Your task to perform on an android device: open app "AliExpress" (install if not already installed), go to login, and select forgot password Image 0: 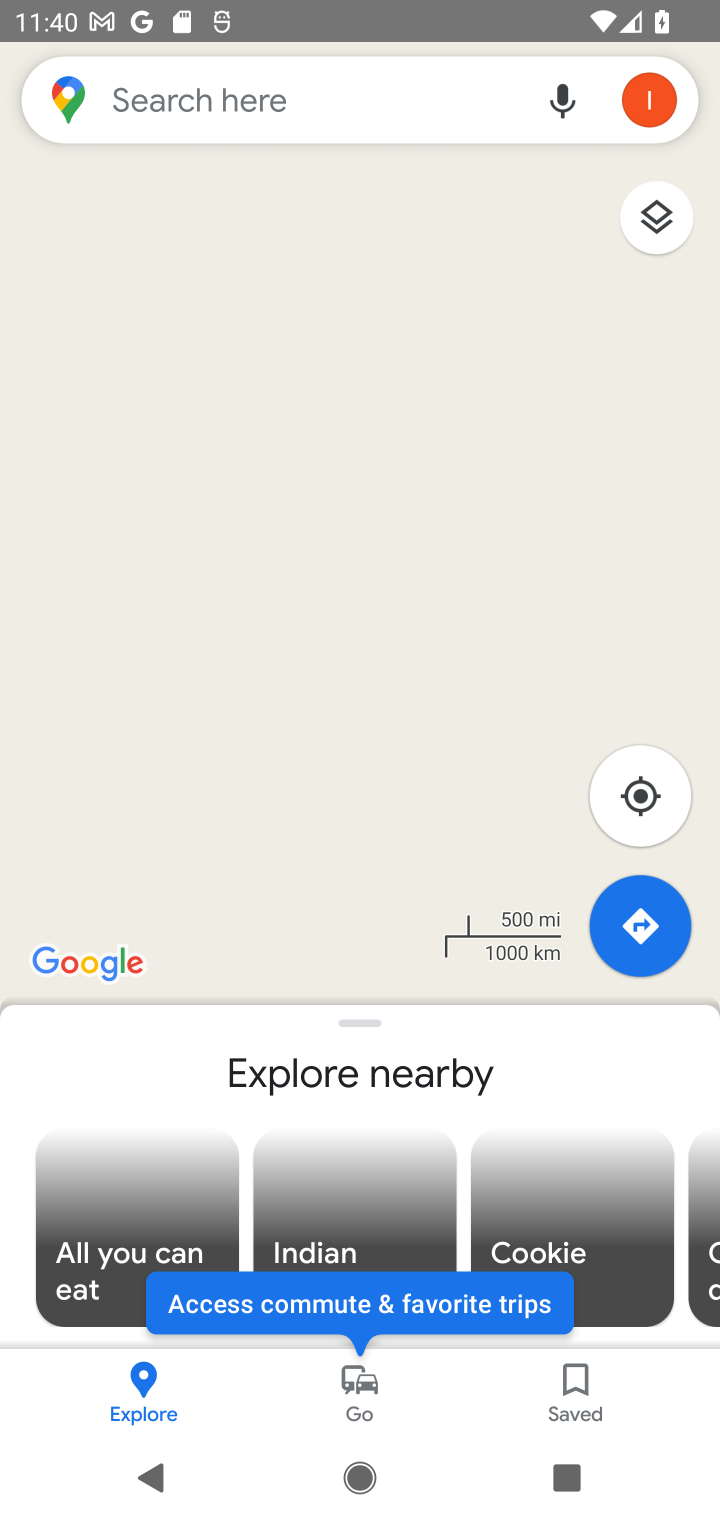
Step 0: press home button
Your task to perform on an android device: open app "AliExpress" (install if not already installed), go to login, and select forgot password Image 1: 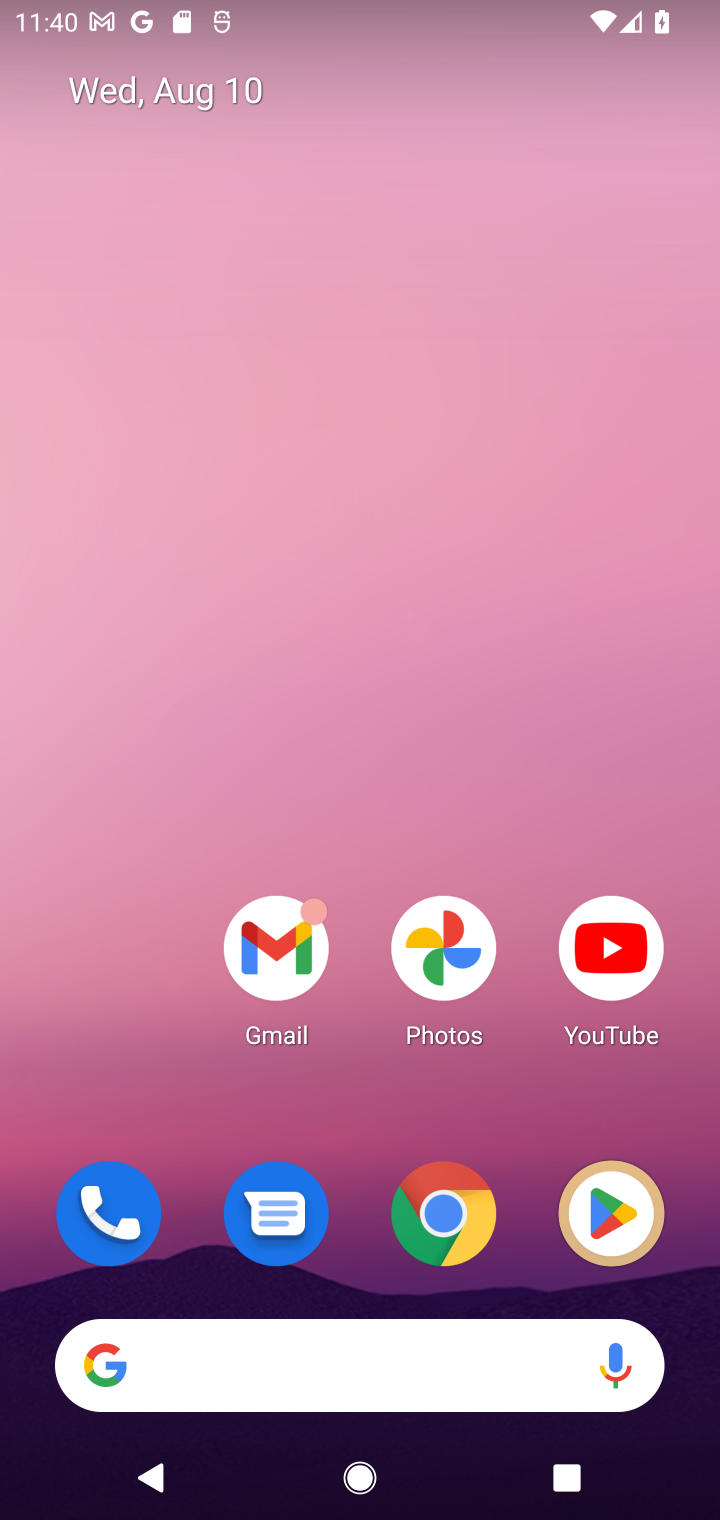
Step 1: drag from (309, 1358) to (363, 209)
Your task to perform on an android device: open app "AliExpress" (install if not already installed), go to login, and select forgot password Image 2: 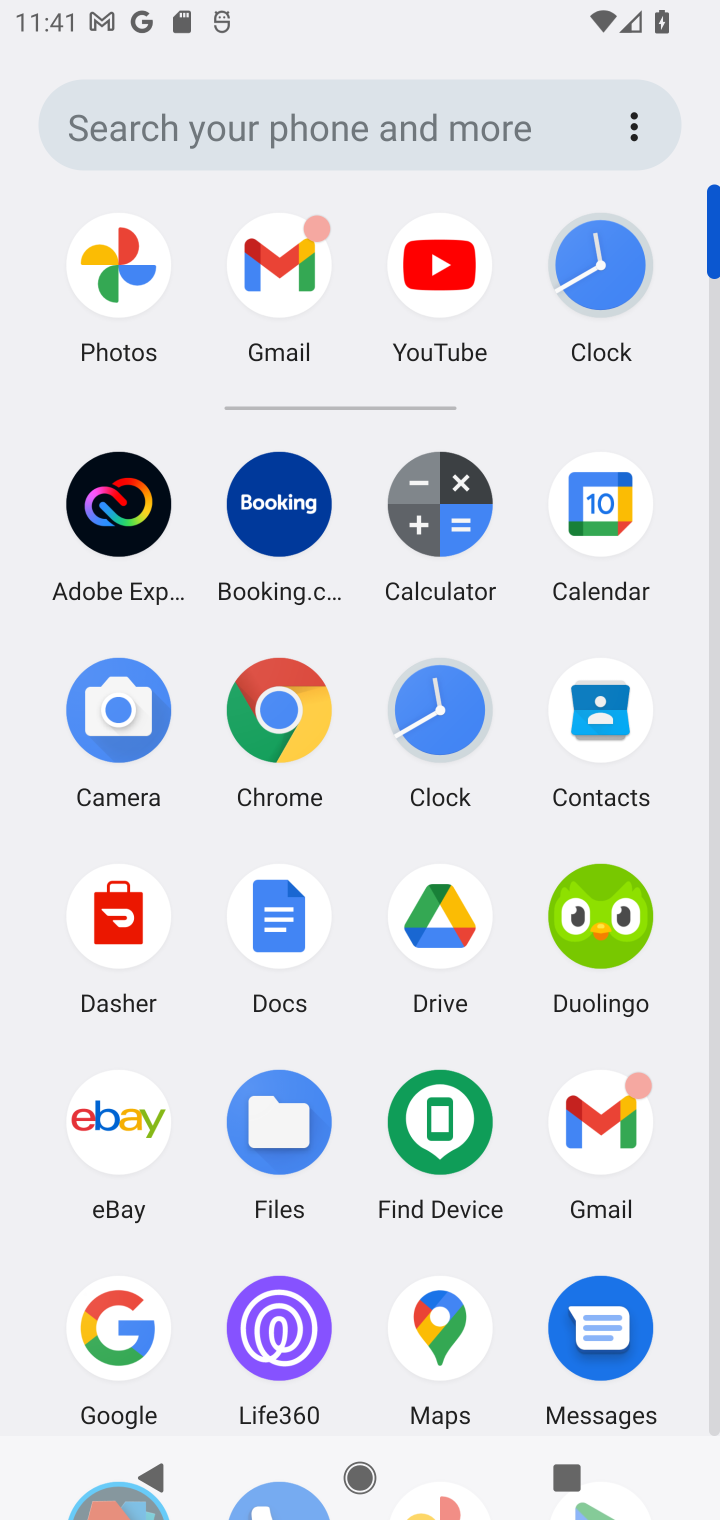
Step 2: drag from (515, 1216) to (538, 662)
Your task to perform on an android device: open app "AliExpress" (install if not already installed), go to login, and select forgot password Image 3: 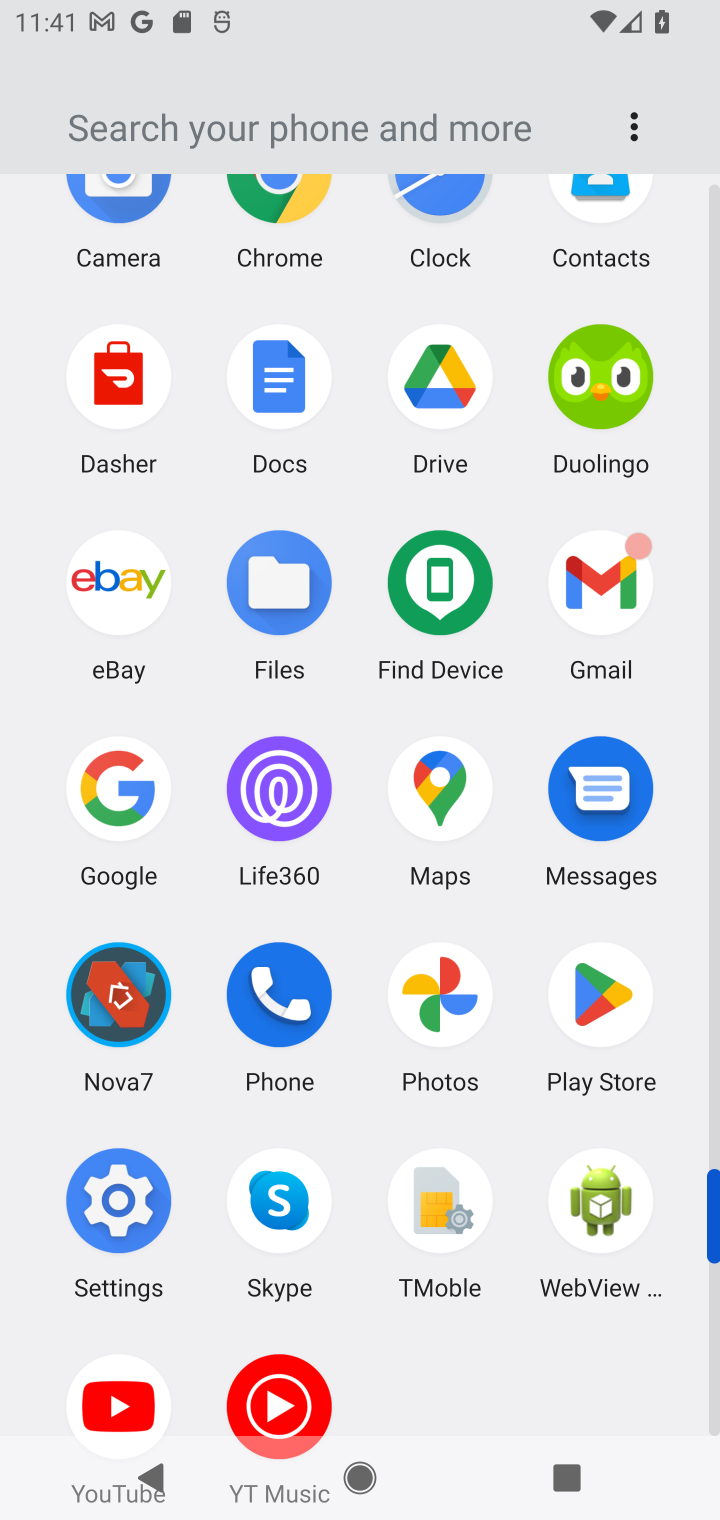
Step 3: click (605, 999)
Your task to perform on an android device: open app "AliExpress" (install if not already installed), go to login, and select forgot password Image 4: 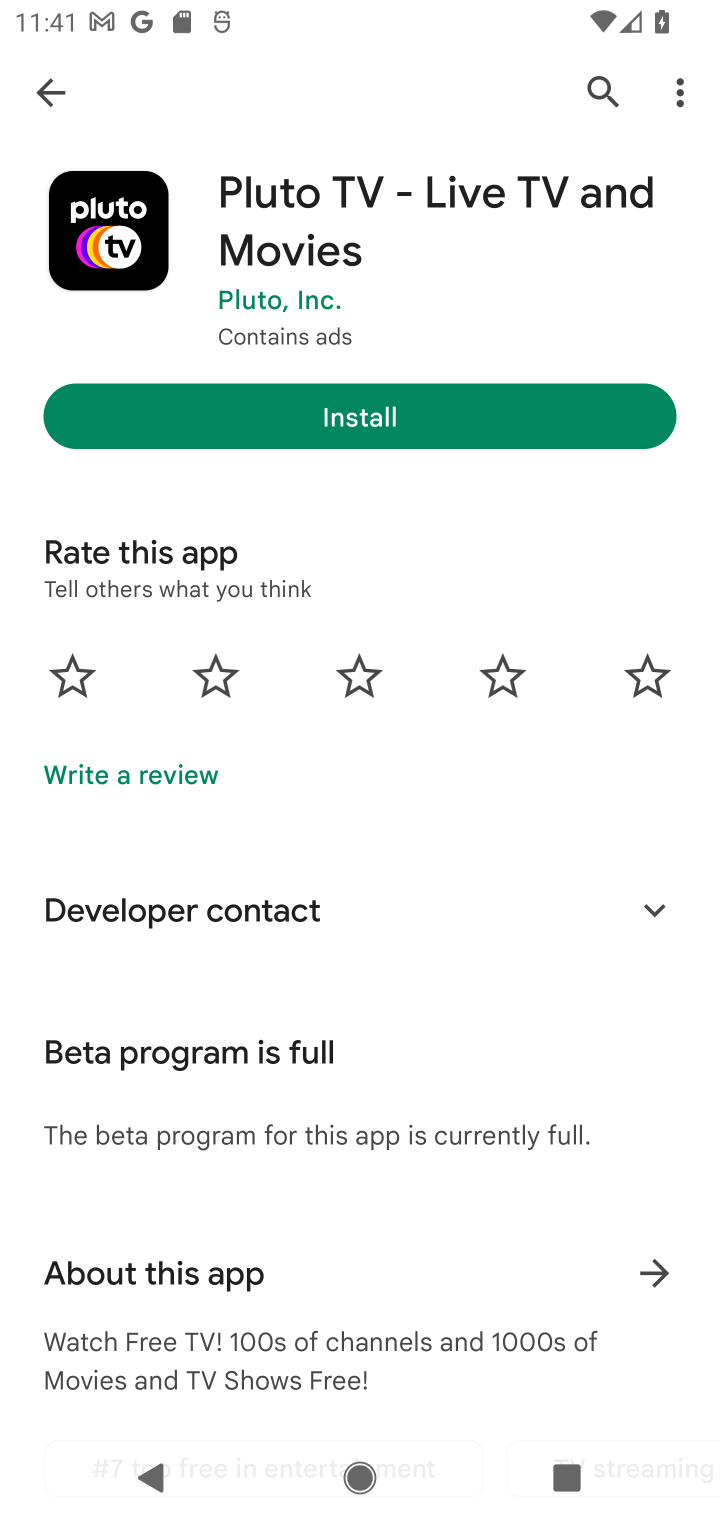
Step 4: press back button
Your task to perform on an android device: open app "AliExpress" (install if not already installed), go to login, and select forgot password Image 5: 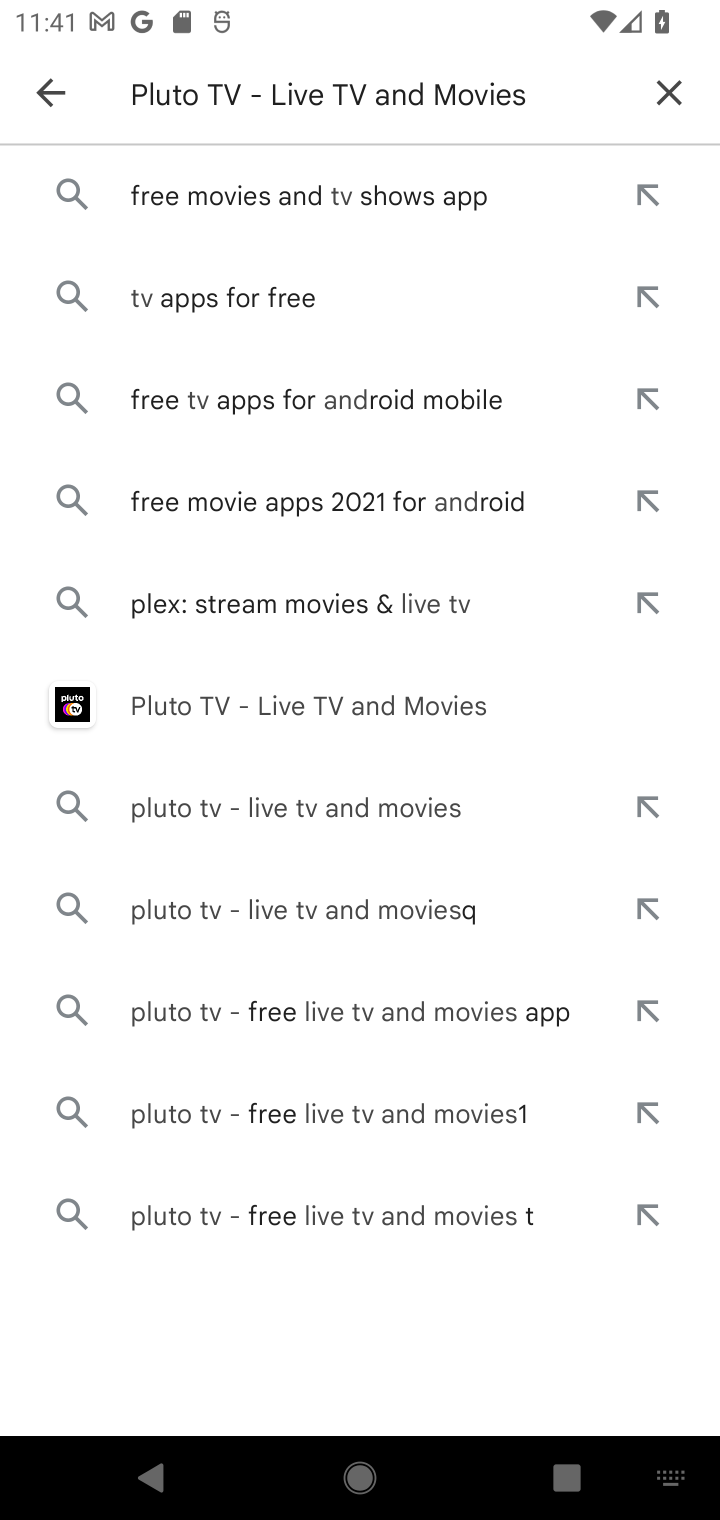
Step 5: press back button
Your task to perform on an android device: open app "AliExpress" (install if not already installed), go to login, and select forgot password Image 6: 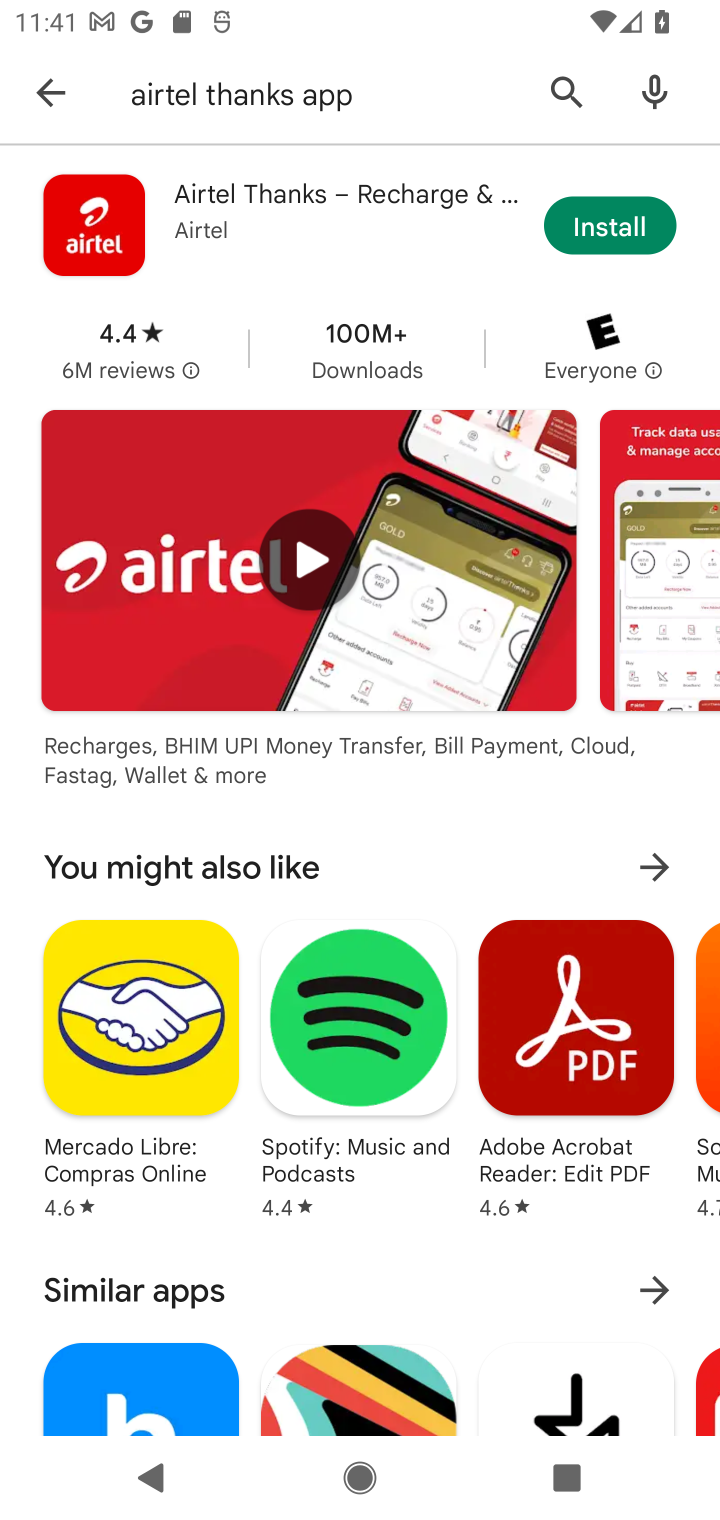
Step 6: press back button
Your task to perform on an android device: open app "AliExpress" (install if not already installed), go to login, and select forgot password Image 7: 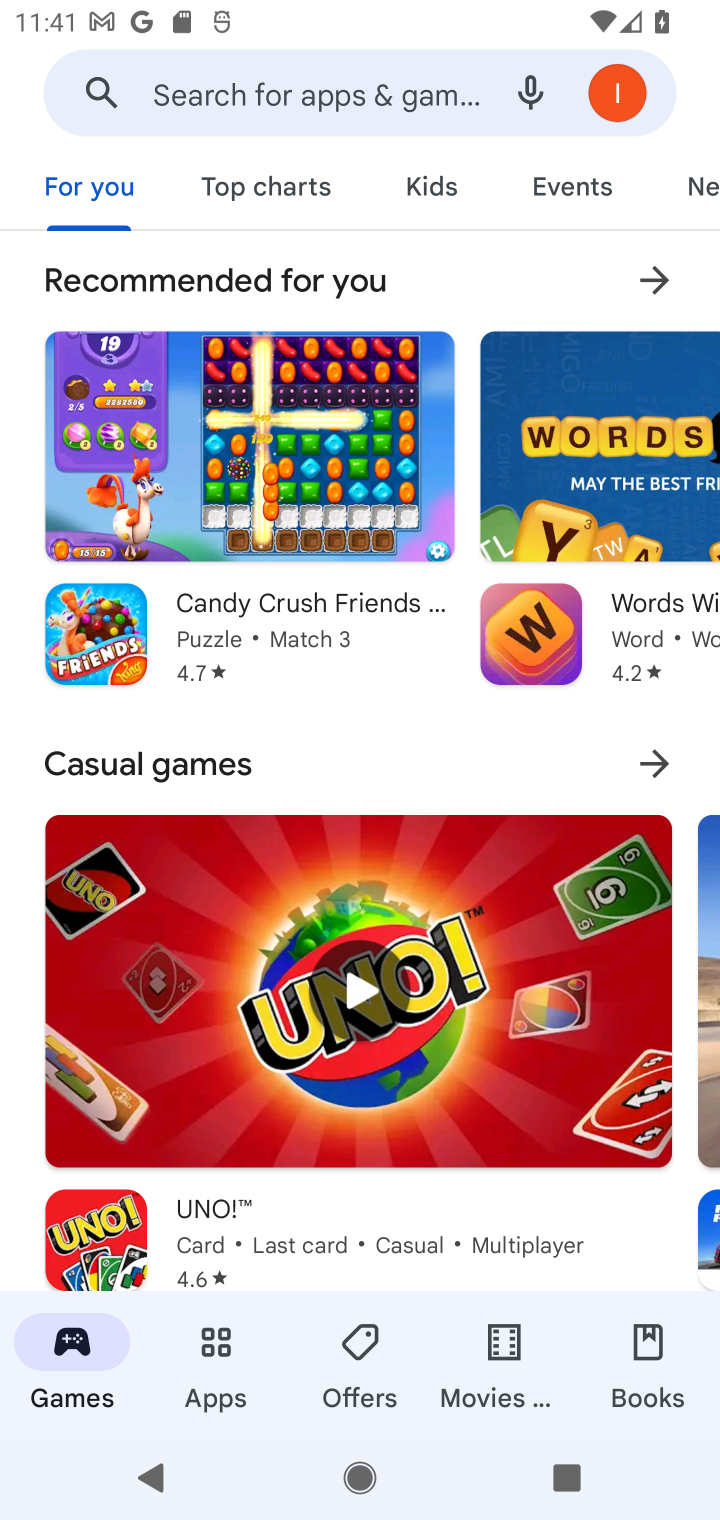
Step 7: click (388, 98)
Your task to perform on an android device: open app "AliExpress" (install if not already installed), go to login, and select forgot password Image 8: 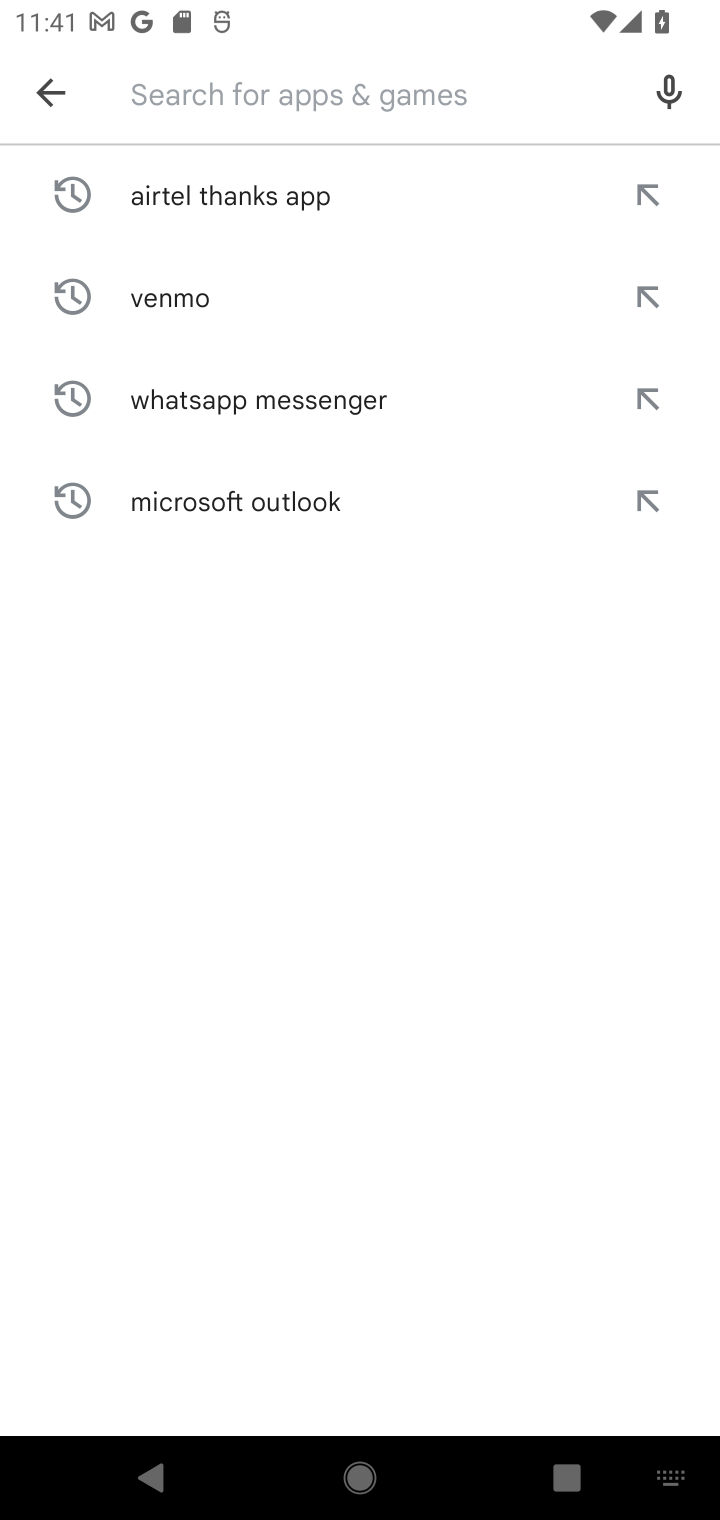
Step 8: type "AliExpress"
Your task to perform on an android device: open app "AliExpress" (install if not already installed), go to login, and select forgot password Image 9: 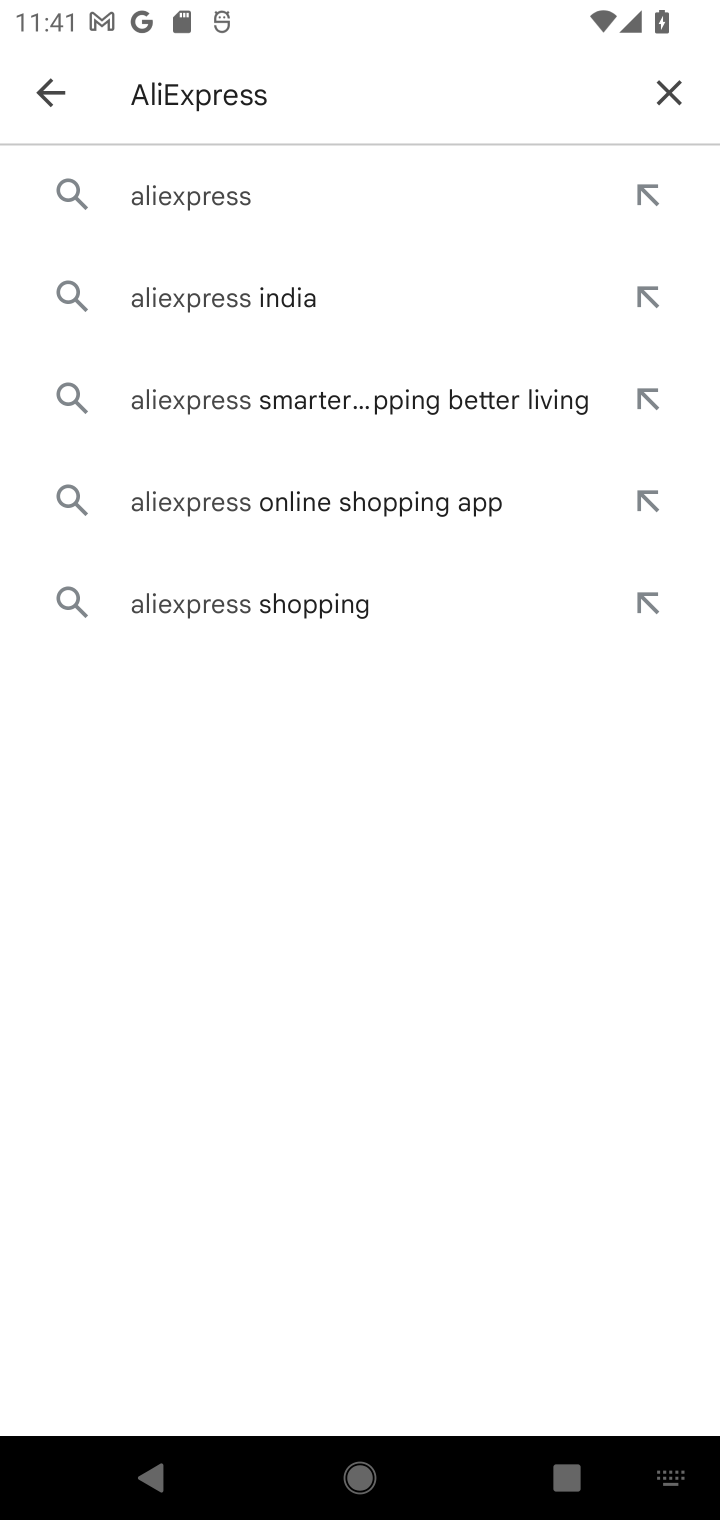
Step 9: click (188, 198)
Your task to perform on an android device: open app "AliExpress" (install if not already installed), go to login, and select forgot password Image 10: 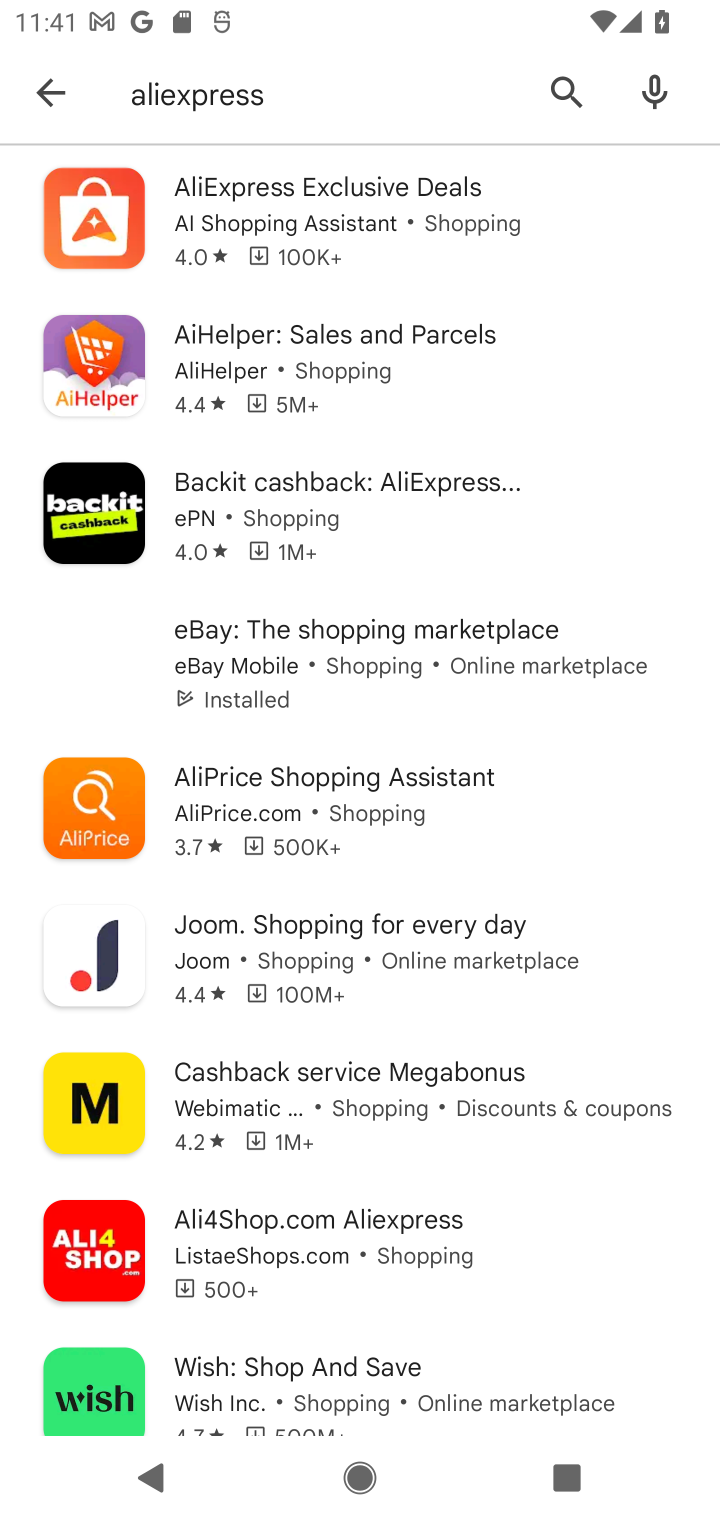
Step 10: click (298, 175)
Your task to perform on an android device: open app "AliExpress" (install if not already installed), go to login, and select forgot password Image 11: 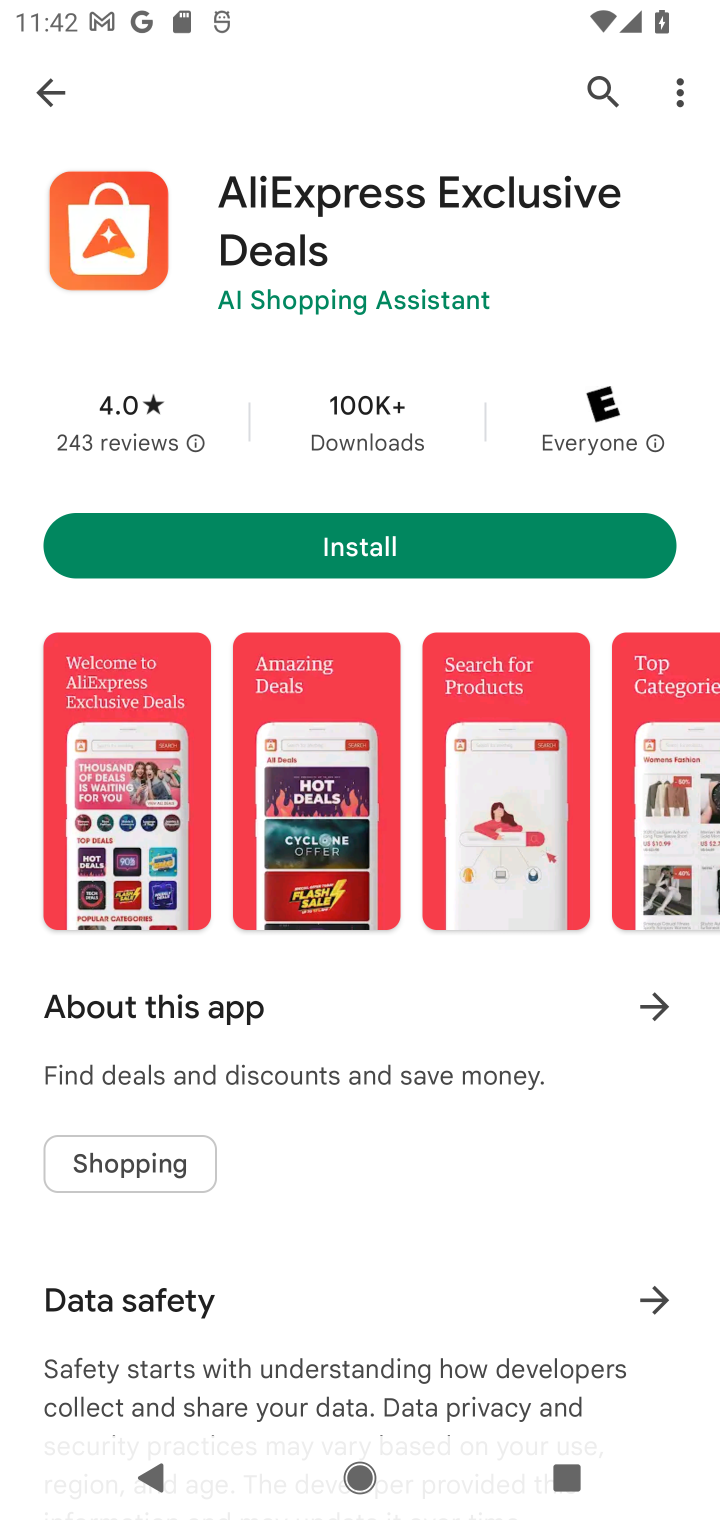
Step 11: click (445, 546)
Your task to perform on an android device: open app "AliExpress" (install if not already installed), go to login, and select forgot password Image 12: 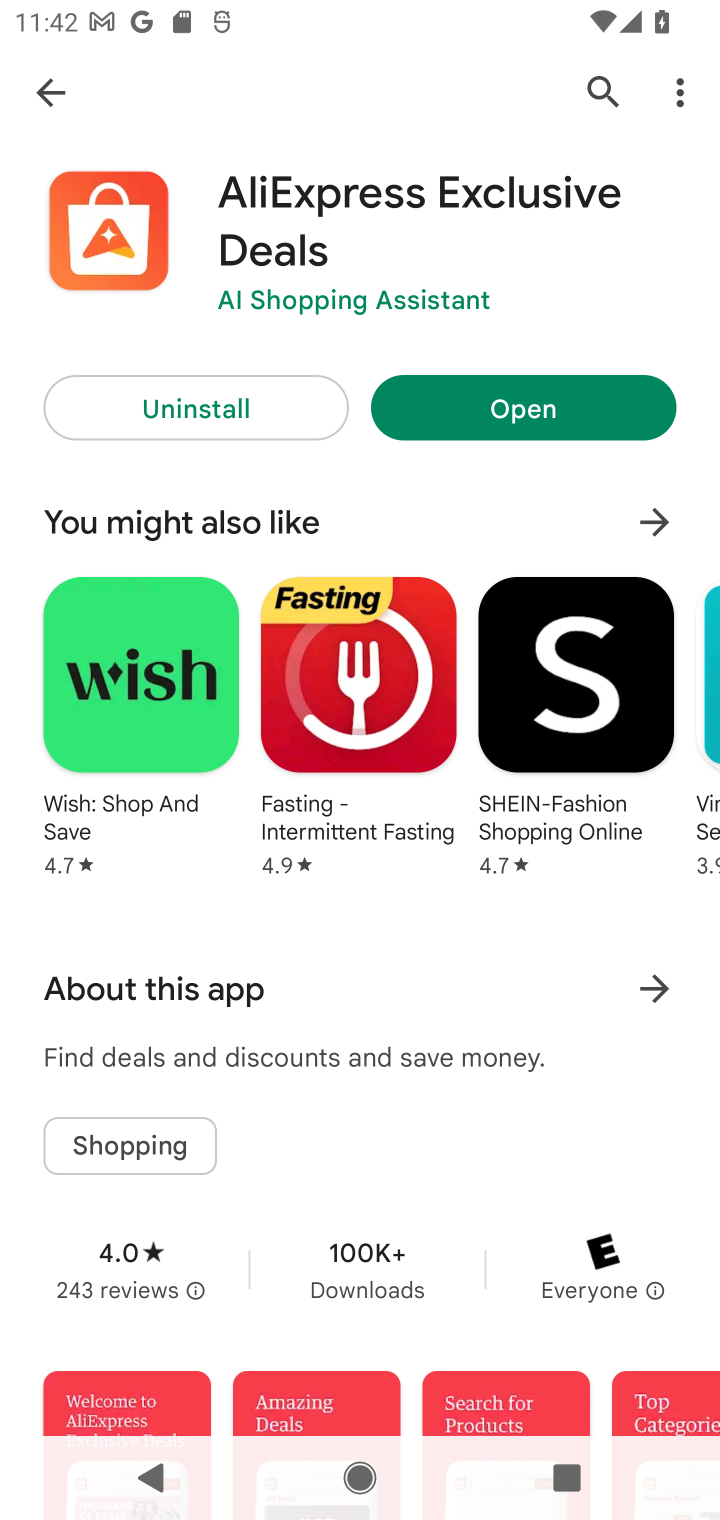
Step 12: click (515, 411)
Your task to perform on an android device: open app "AliExpress" (install if not already installed), go to login, and select forgot password Image 13: 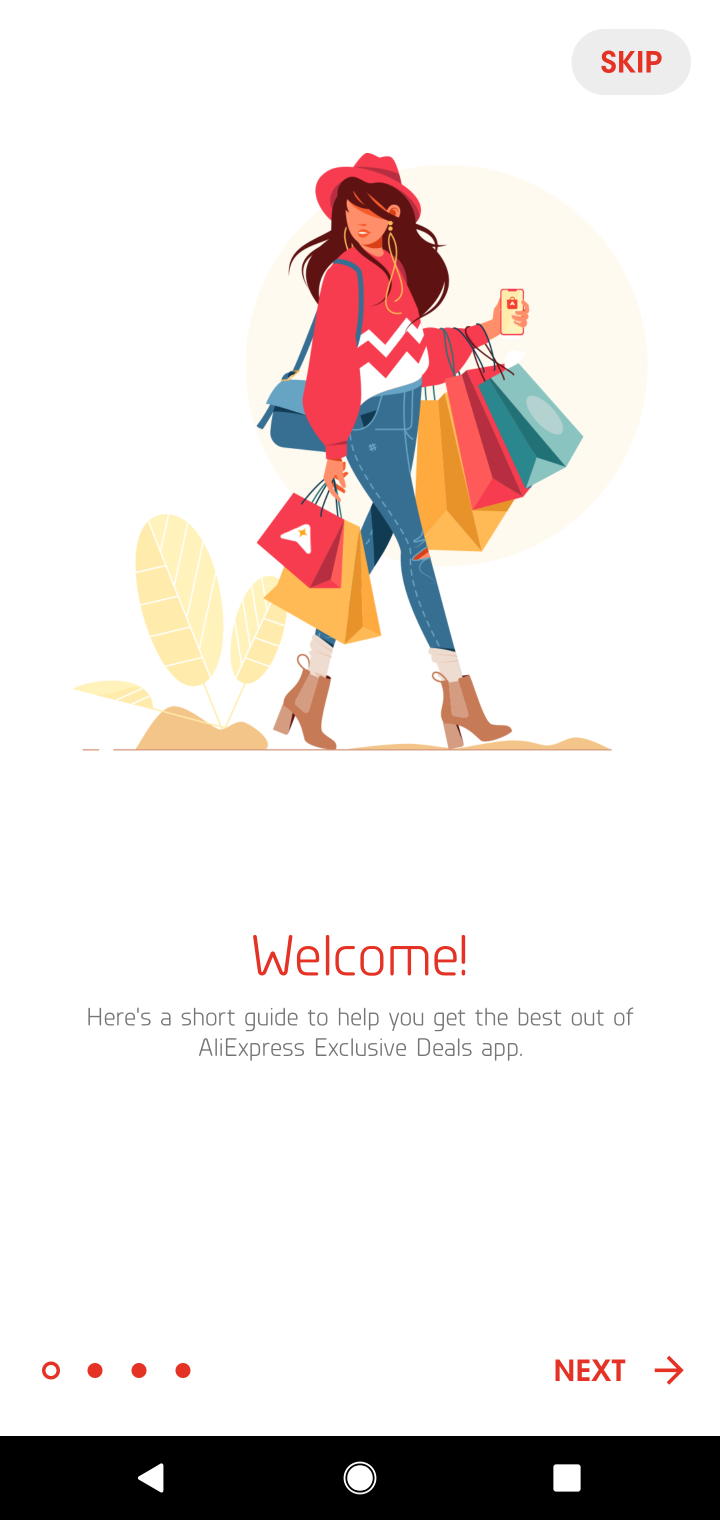
Step 13: click (603, 1362)
Your task to perform on an android device: open app "AliExpress" (install if not already installed), go to login, and select forgot password Image 14: 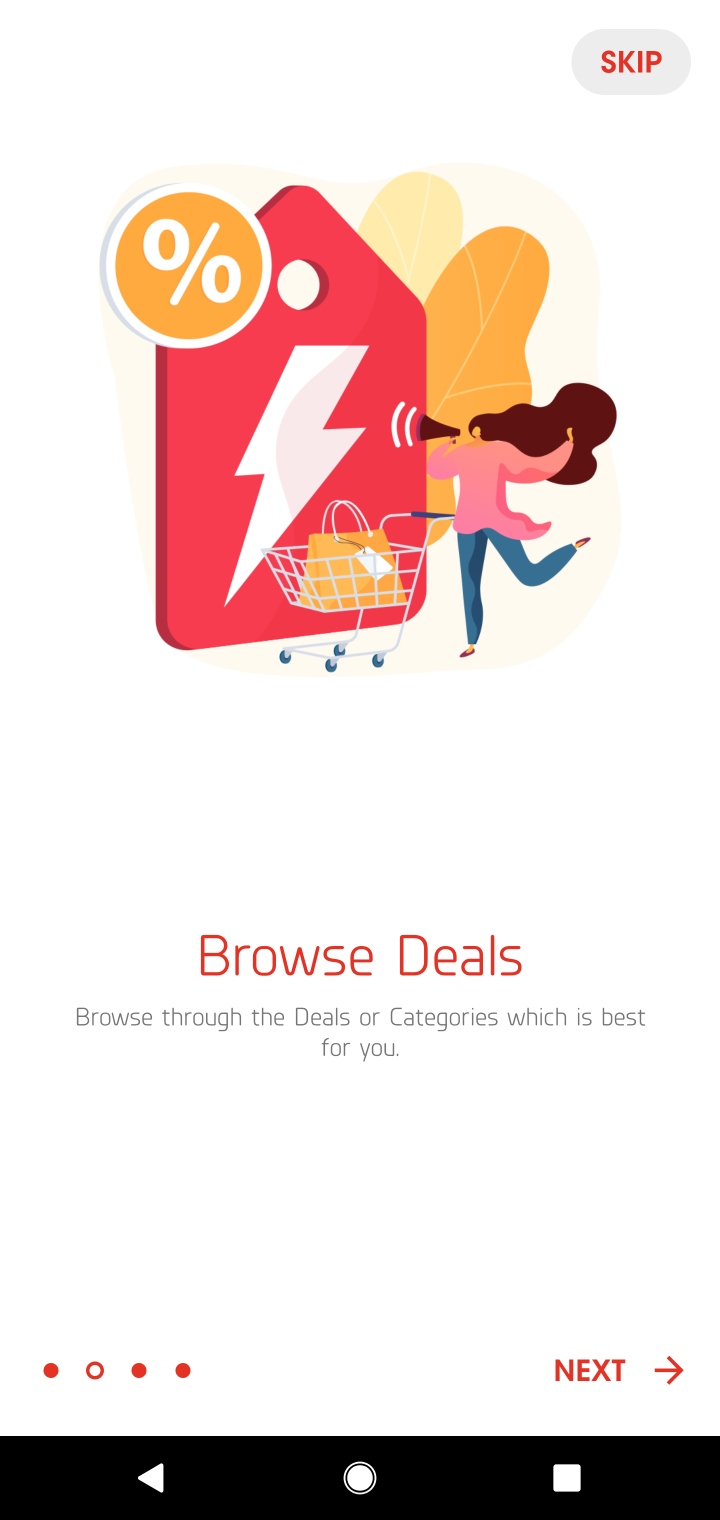
Step 14: click (603, 1362)
Your task to perform on an android device: open app "AliExpress" (install if not already installed), go to login, and select forgot password Image 15: 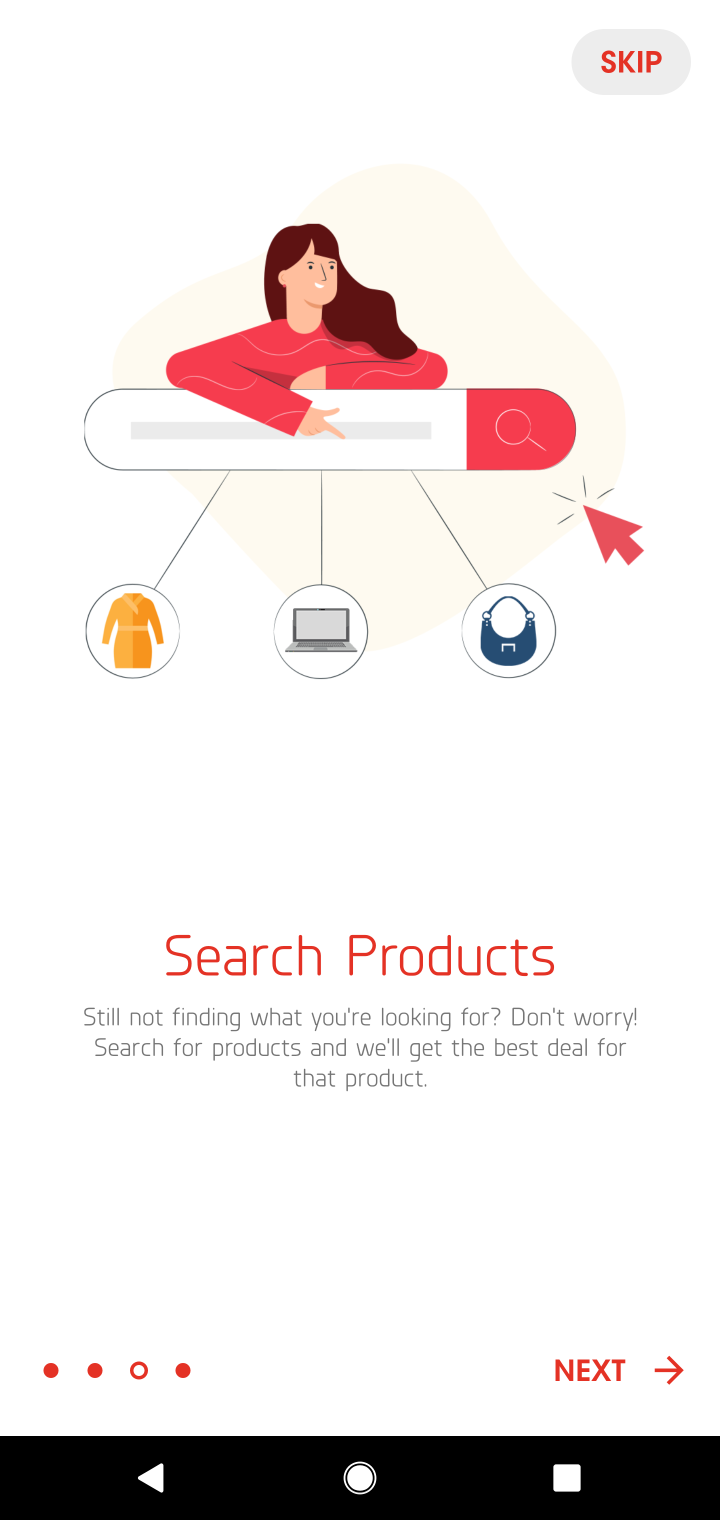
Step 15: click (603, 1362)
Your task to perform on an android device: open app "AliExpress" (install if not already installed), go to login, and select forgot password Image 16: 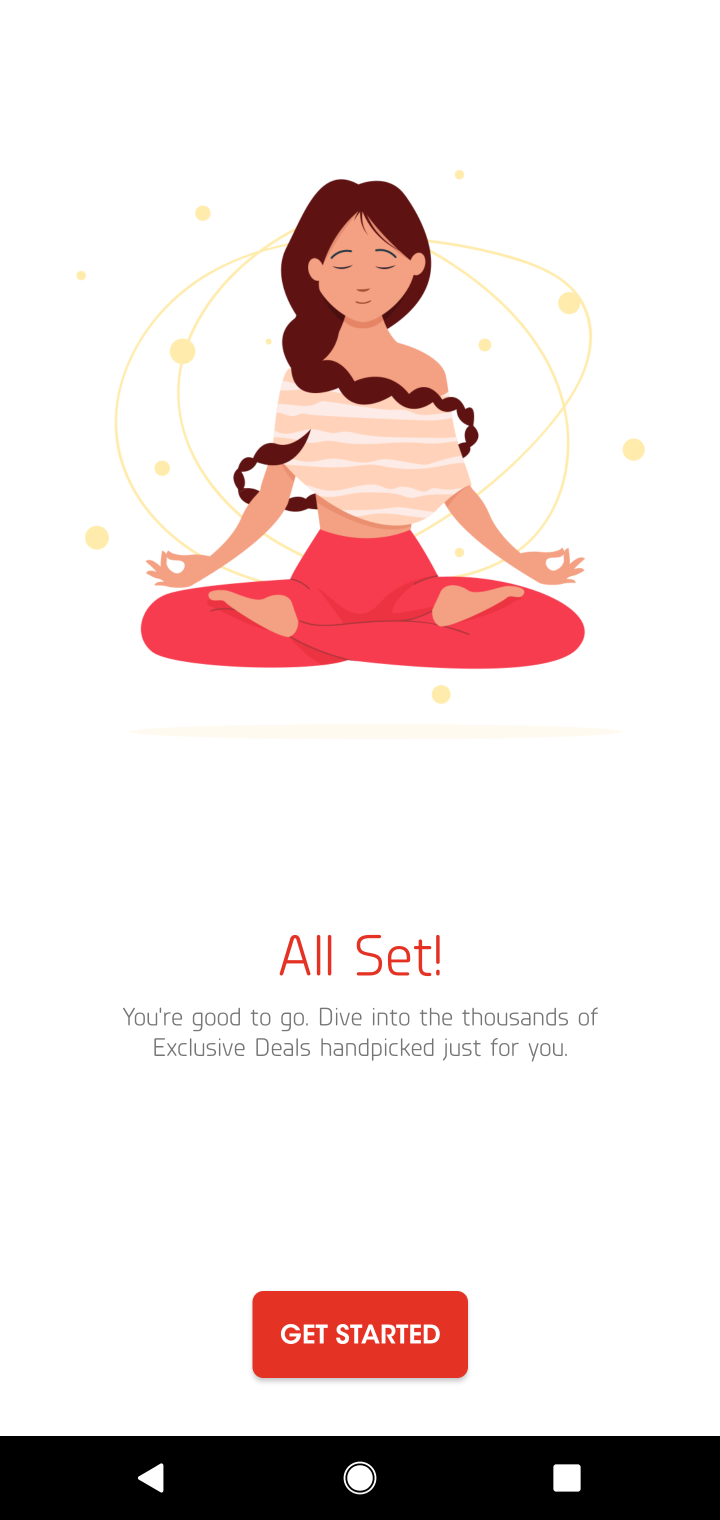
Step 16: click (379, 1356)
Your task to perform on an android device: open app "AliExpress" (install if not already installed), go to login, and select forgot password Image 17: 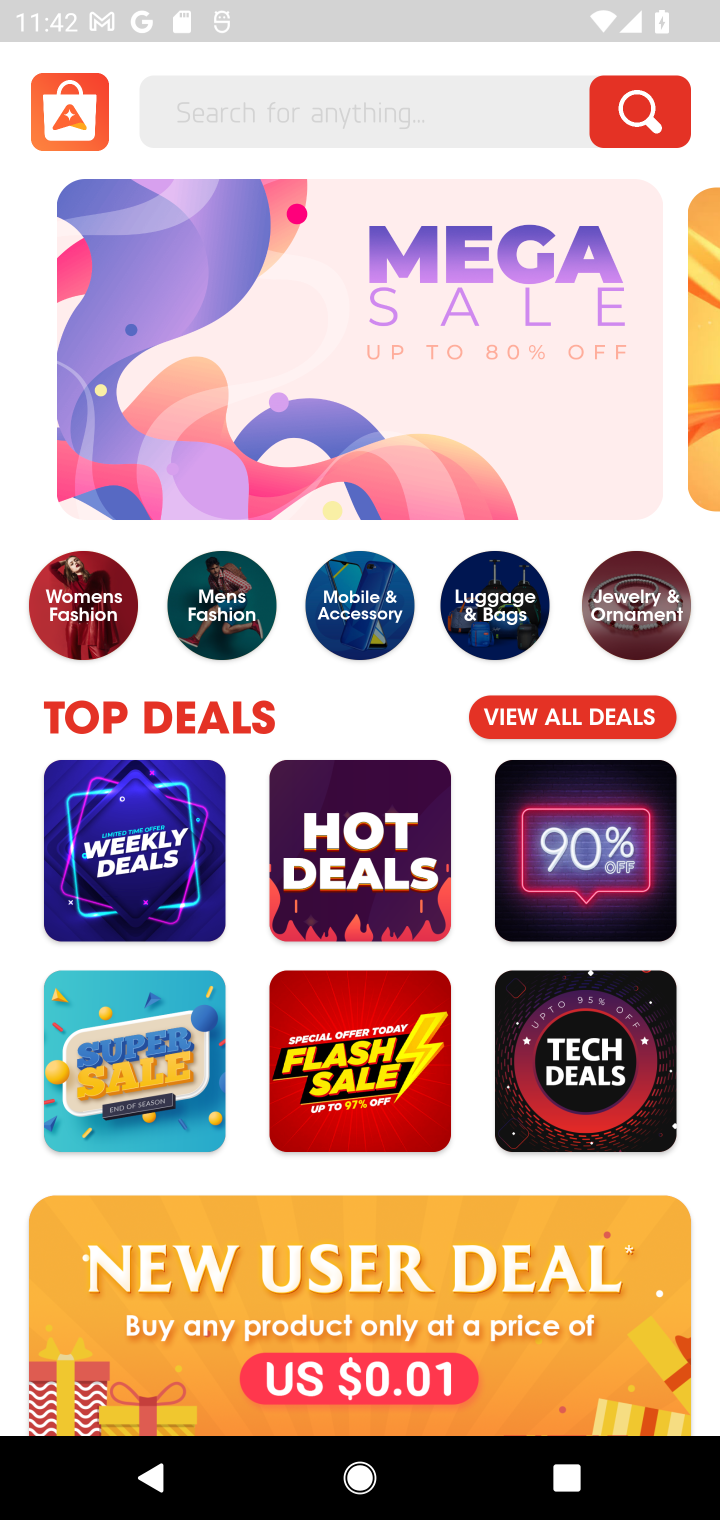
Step 17: click (88, 125)
Your task to perform on an android device: open app "AliExpress" (install if not already installed), go to login, and select forgot password Image 18: 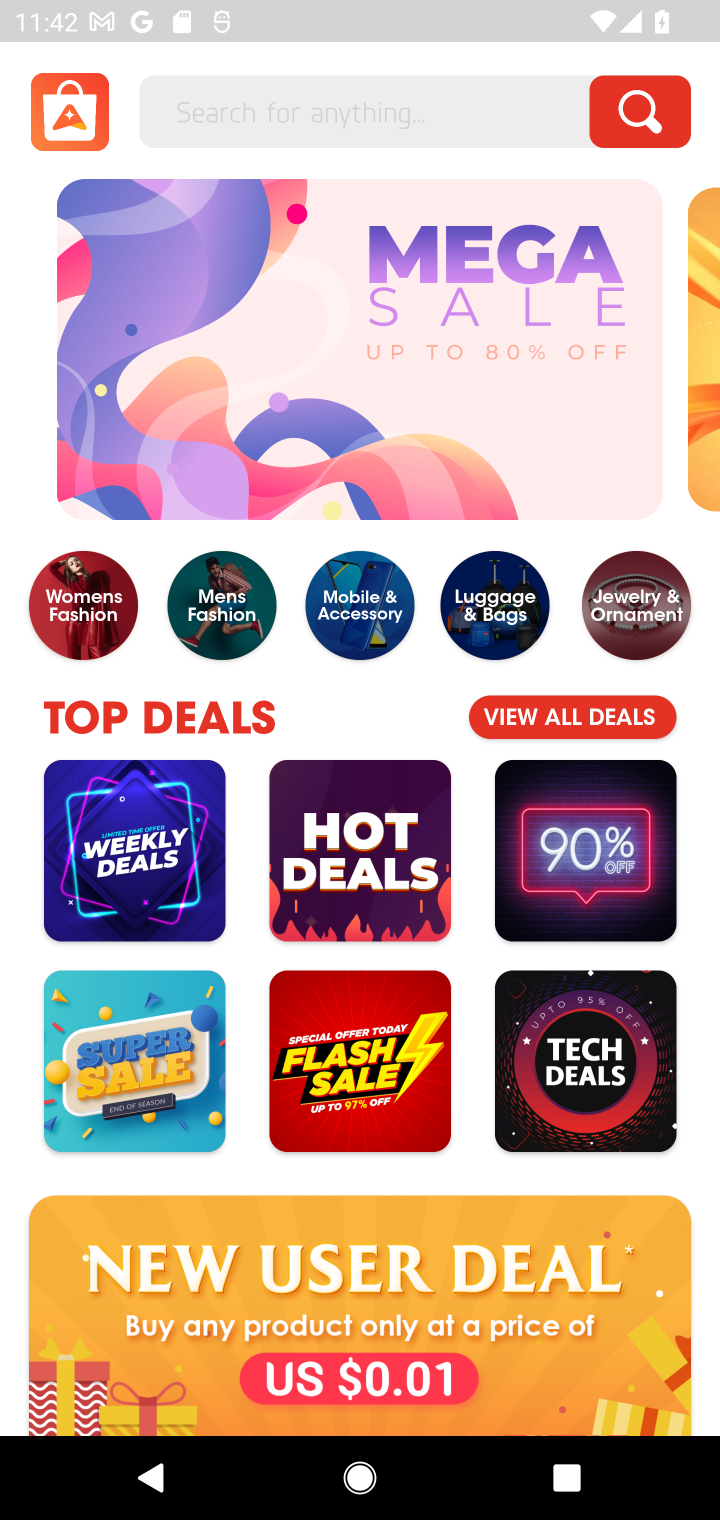
Step 18: task complete